Your task to perform on an android device: turn on bluetooth scan Image 0: 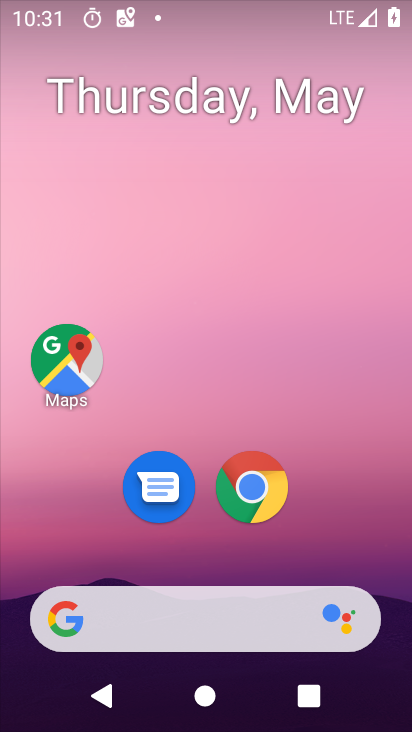
Step 0: drag from (125, 581) to (19, 3)
Your task to perform on an android device: turn on bluetooth scan Image 1: 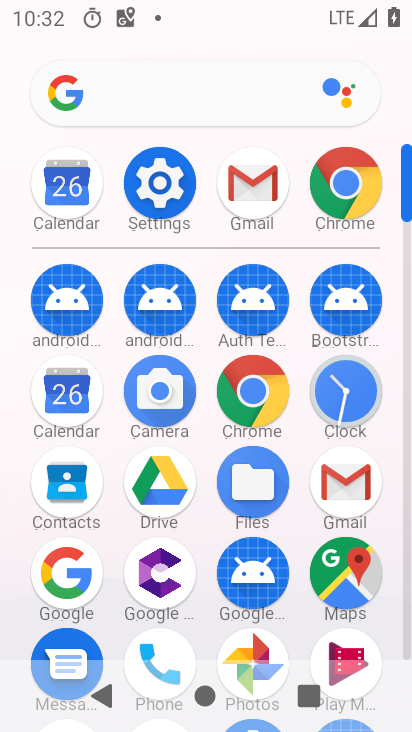
Step 1: click (183, 191)
Your task to perform on an android device: turn on bluetooth scan Image 2: 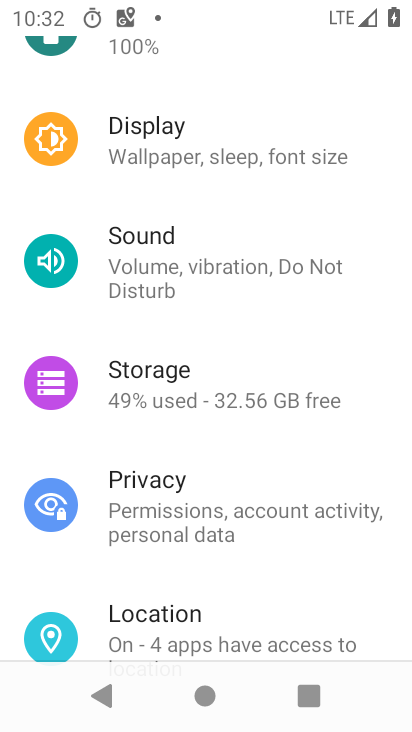
Step 2: drag from (192, 227) to (277, 545)
Your task to perform on an android device: turn on bluetooth scan Image 3: 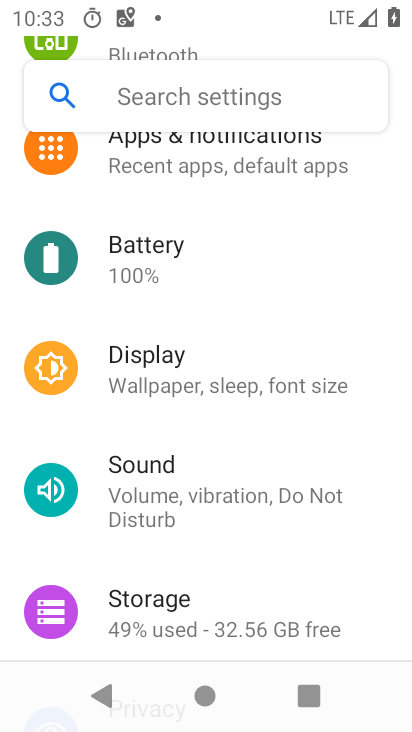
Step 3: drag from (133, 233) to (190, 661)
Your task to perform on an android device: turn on bluetooth scan Image 4: 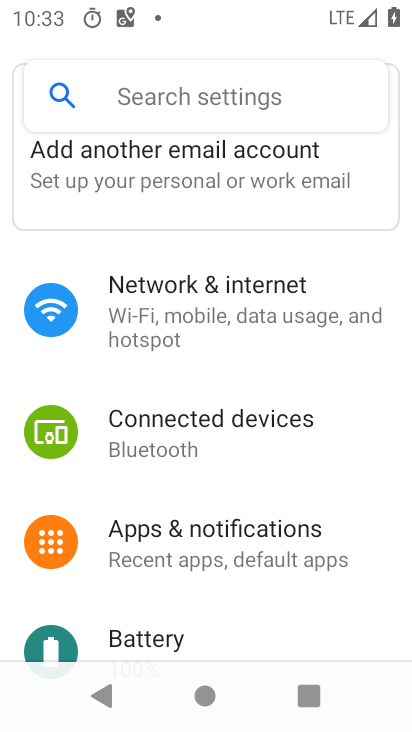
Step 4: click (232, 424)
Your task to perform on an android device: turn on bluetooth scan Image 5: 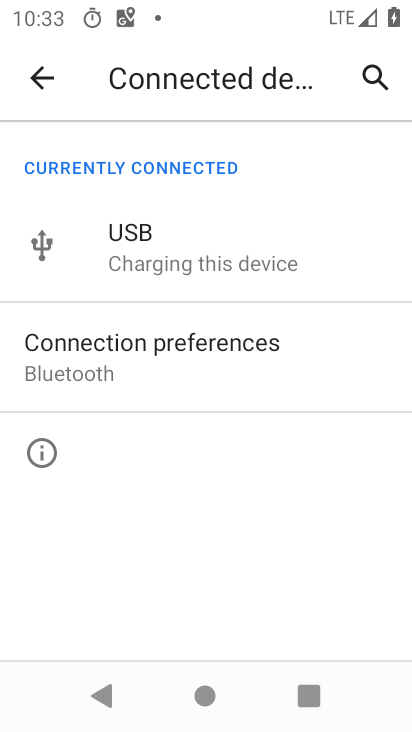
Step 5: click (256, 362)
Your task to perform on an android device: turn on bluetooth scan Image 6: 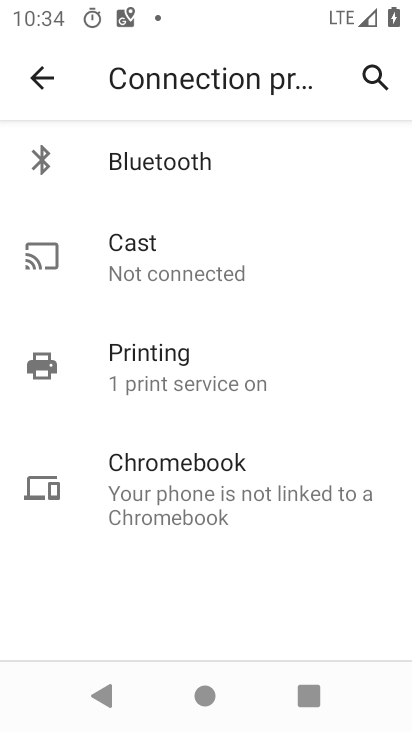
Step 6: click (249, 162)
Your task to perform on an android device: turn on bluetooth scan Image 7: 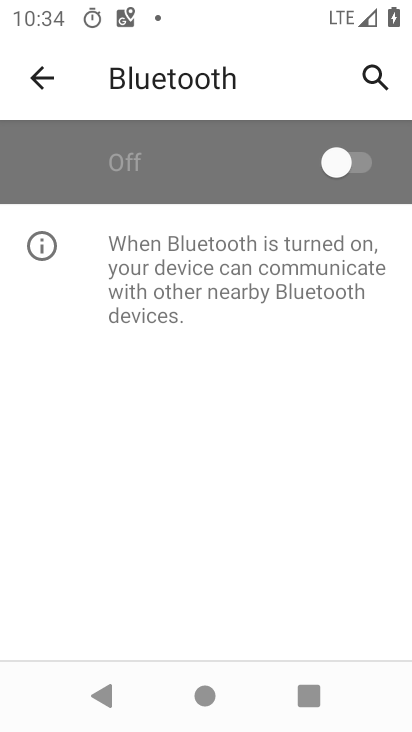
Step 7: click (358, 144)
Your task to perform on an android device: turn on bluetooth scan Image 8: 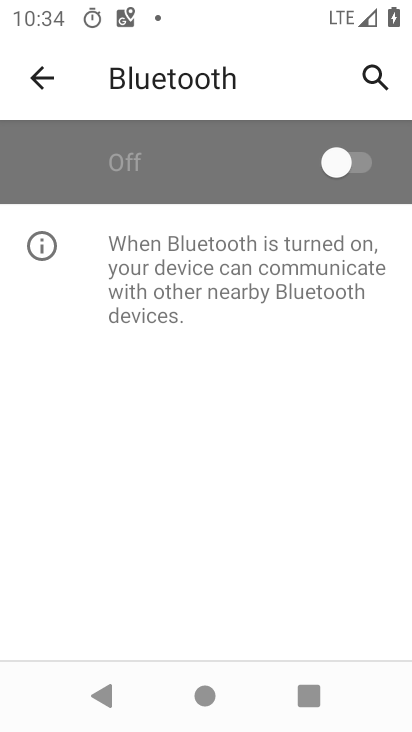
Step 8: click (358, 144)
Your task to perform on an android device: turn on bluetooth scan Image 9: 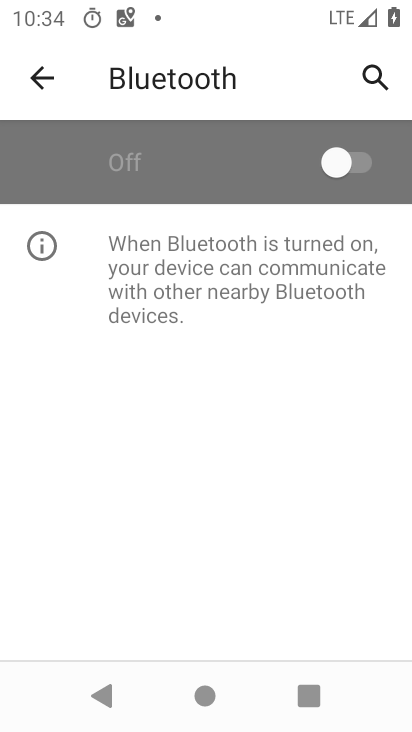
Step 9: task complete